Your task to perform on an android device: Is it going to rain today? Image 0: 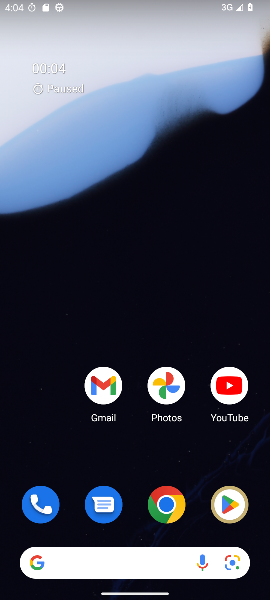
Step 0: click (64, 558)
Your task to perform on an android device: Is it going to rain today? Image 1: 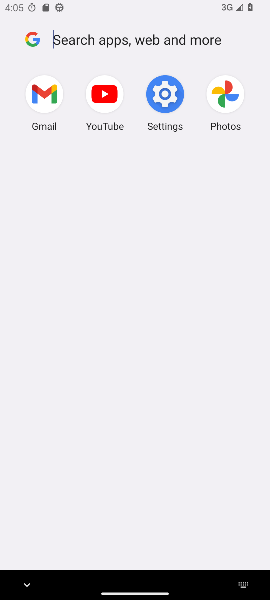
Step 1: type "Is it going to rain today?"
Your task to perform on an android device: Is it going to rain today? Image 2: 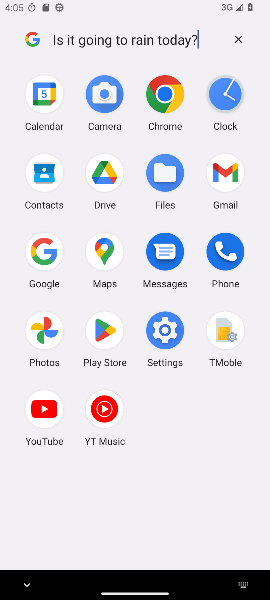
Step 2: type ""
Your task to perform on an android device: Is it going to rain today? Image 3: 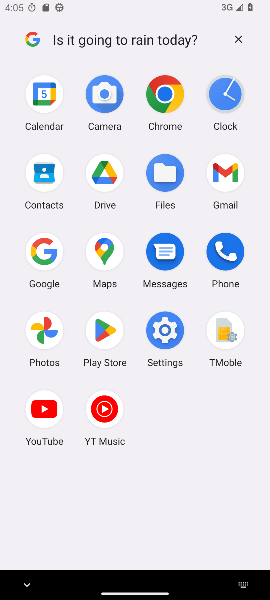
Step 3: type ""
Your task to perform on an android device: Is it going to rain today? Image 4: 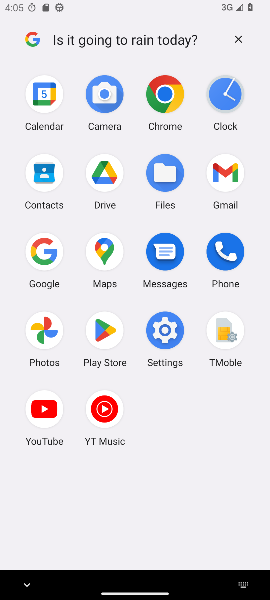
Step 4: type ""
Your task to perform on an android device: Is it going to rain today? Image 5: 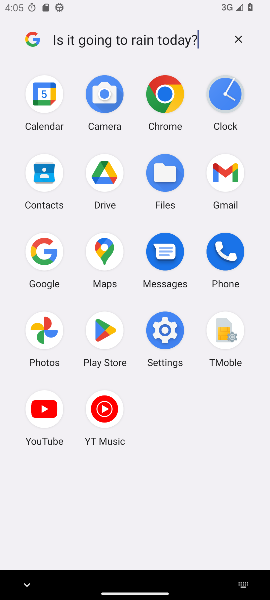
Step 5: type ""
Your task to perform on an android device: Is it going to rain today? Image 6: 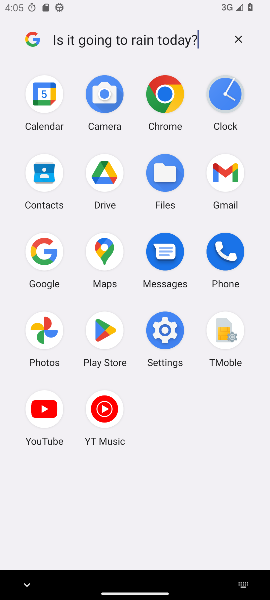
Step 6: task complete